Your task to perform on an android device: Go to notification settings Image 0: 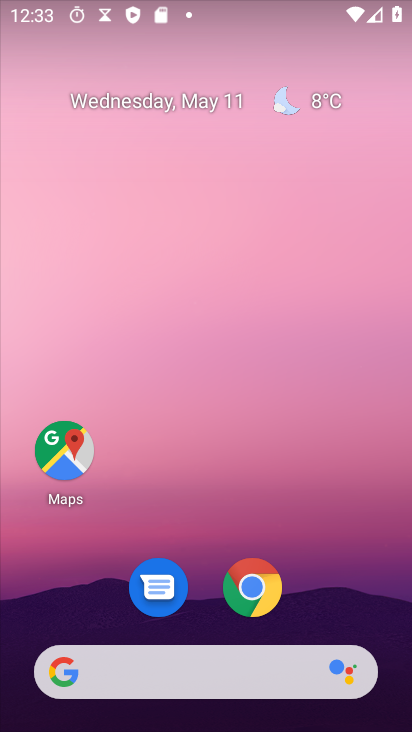
Step 0: drag from (295, 446) to (177, 90)
Your task to perform on an android device: Go to notification settings Image 1: 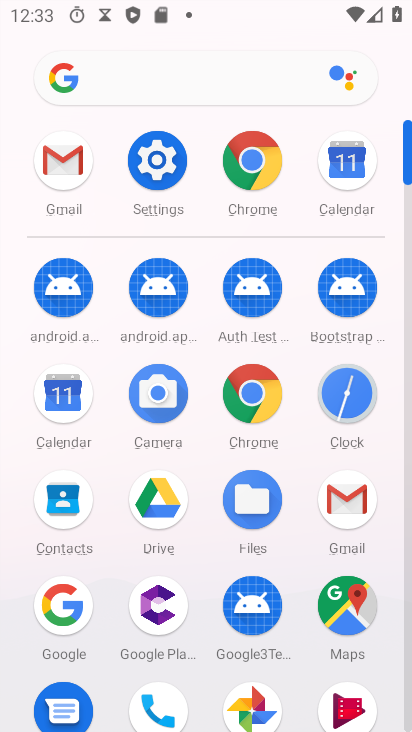
Step 1: click (147, 163)
Your task to perform on an android device: Go to notification settings Image 2: 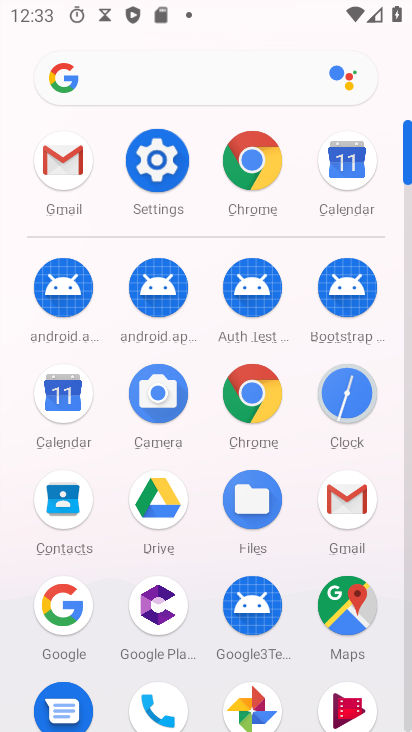
Step 2: click (147, 168)
Your task to perform on an android device: Go to notification settings Image 3: 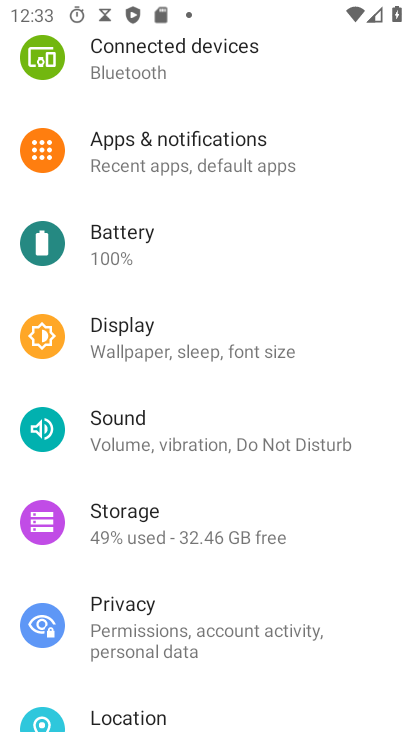
Step 3: click (166, 142)
Your task to perform on an android device: Go to notification settings Image 4: 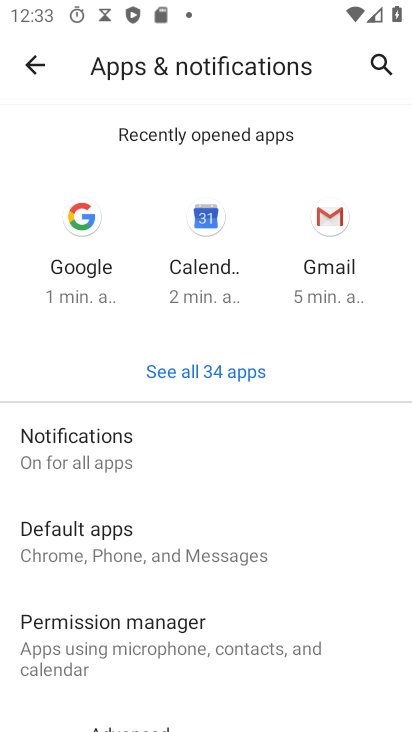
Step 4: drag from (165, 468) to (89, 162)
Your task to perform on an android device: Go to notification settings Image 5: 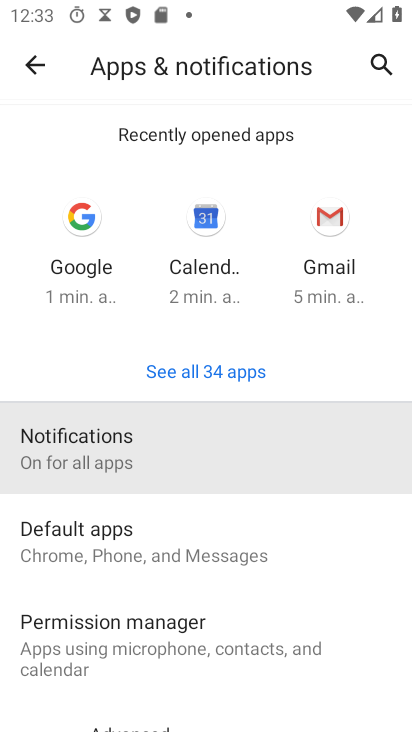
Step 5: drag from (212, 452) to (272, 146)
Your task to perform on an android device: Go to notification settings Image 6: 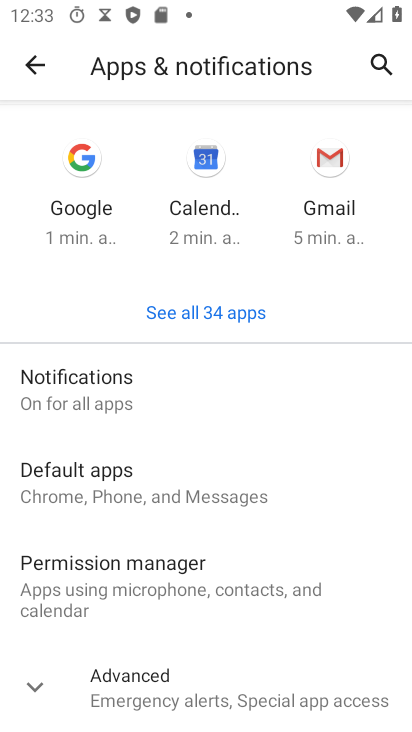
Step 6: click (82, 399)
Your task to perform on an android device: Go to notification settings Image 7: 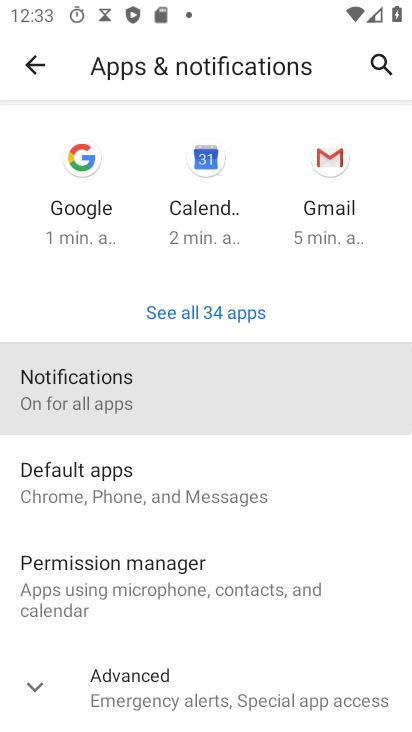
Step 7: click (83, 404)
Your task to perform on an android device: Go to notification settings Image 8: 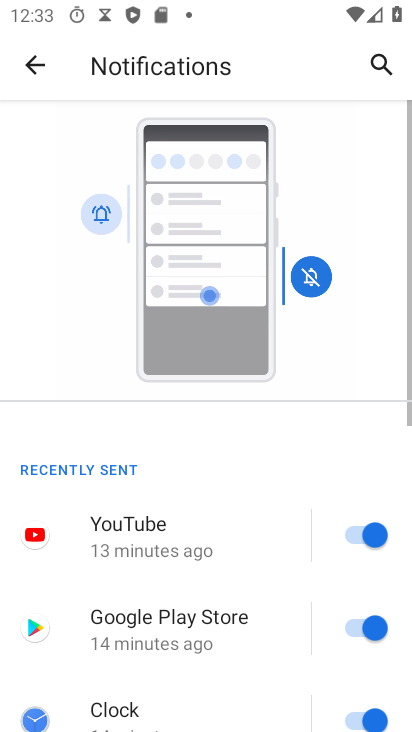
Step 8: drag from (235, 491) to (255, 63)
Your task to perform on an android device: Go to notification settings Image 9: 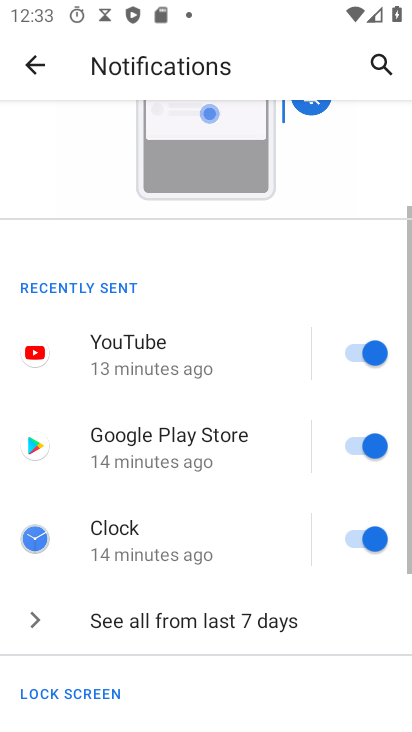
Step 9: drag from (240, 442) to (162, 128)
Your task to perform on an android device: Go to notification settings Image 10: 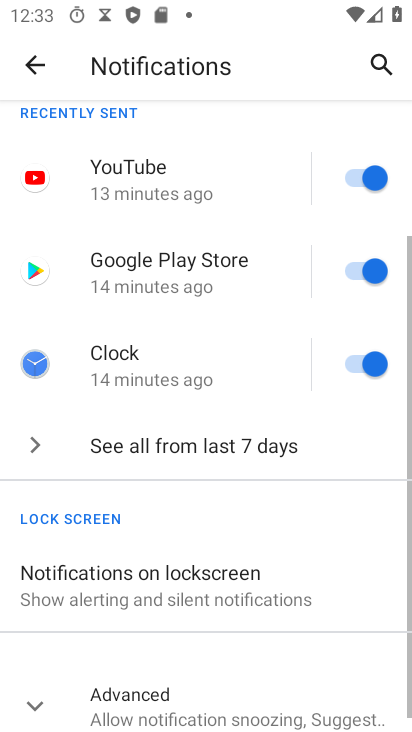
Step 10: drag from (279, 542) to (217, 66)
Your task to perform on an android device: Go to notification settings Image 11: 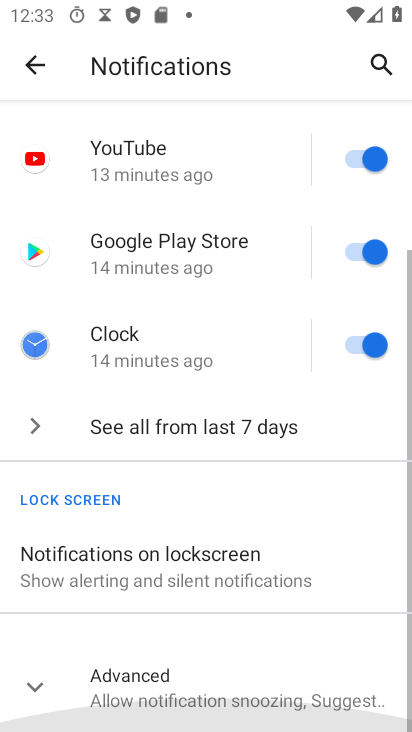
Step 11: drag from (196, 523) to (268, 120)
Your task to perform on an android device: Go to notification settings Image 12: 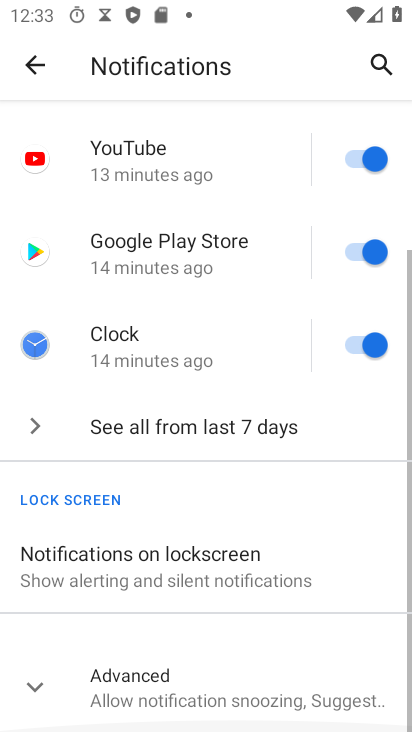
Step 12: drag from (234, 508) to (205, 297)
Your task to perform on an android device: Go to notification settings Image 13: 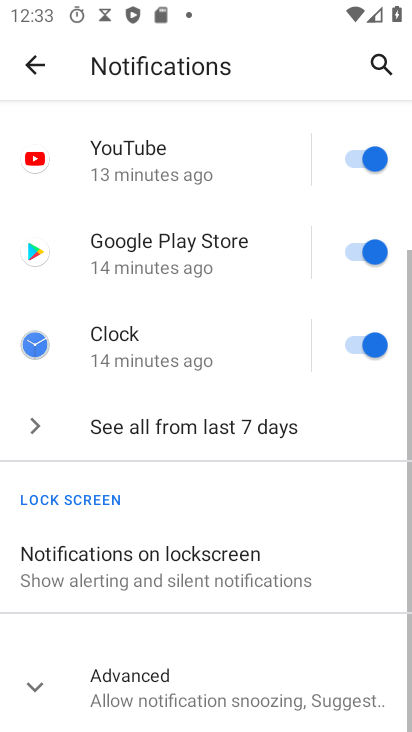
Step 13: click (143, 685)
Your task to perform on an android device: Go to notification settings Image 14: 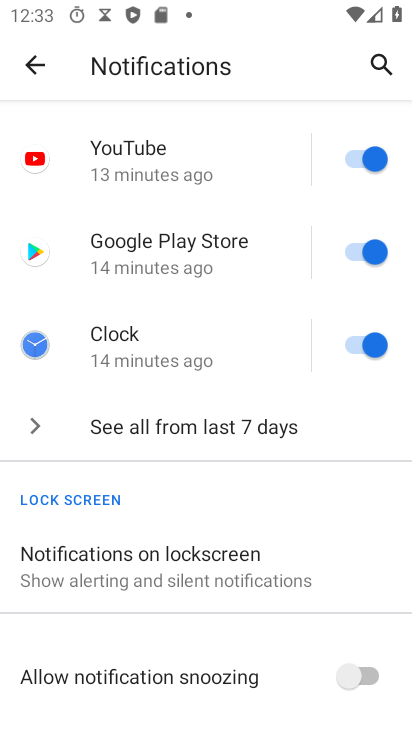
Step 14: task complete